Your task to perform on an android device: View the shopping cart on ebay.com. Image 0: 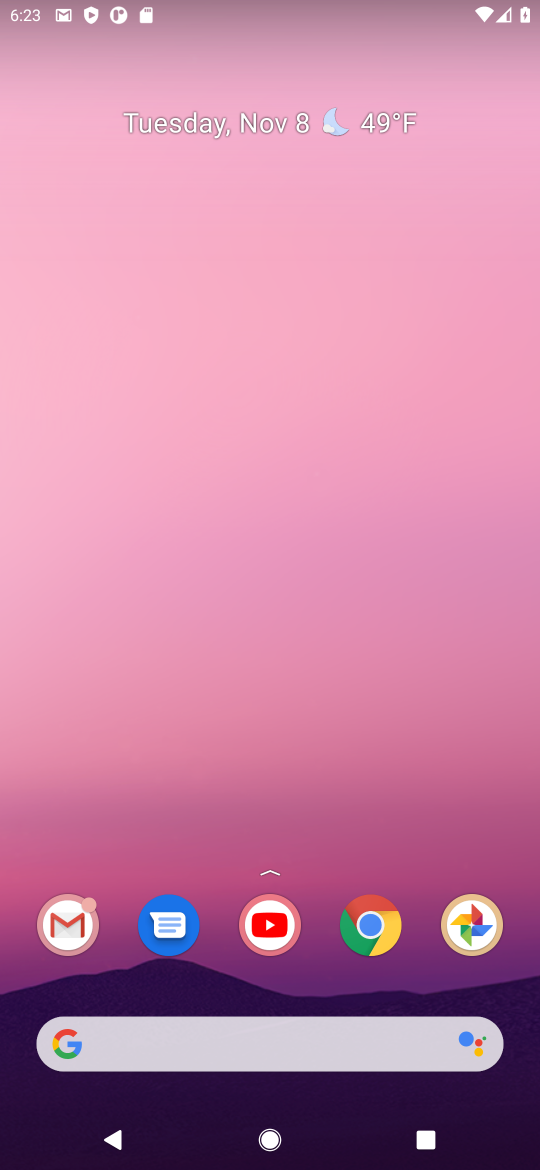
Step 0: click (369, 926)
Your task to perform on an android device: View the shopping cart on ebay.com. Image 1: 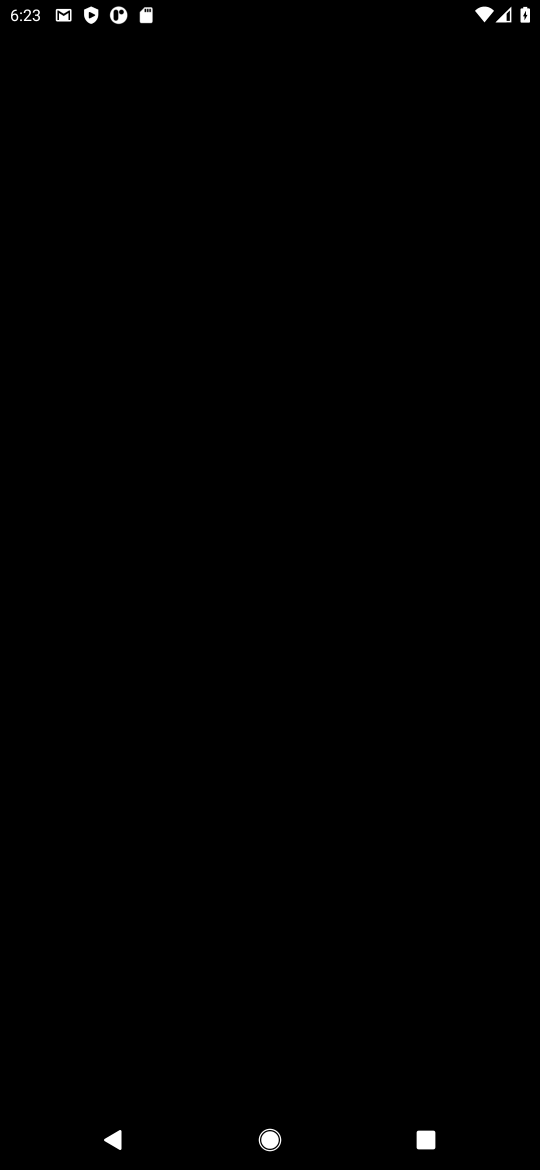
Step 1: press home button
Your task to perform on an android device: View the shopping cart on ebay.com. Image 2: 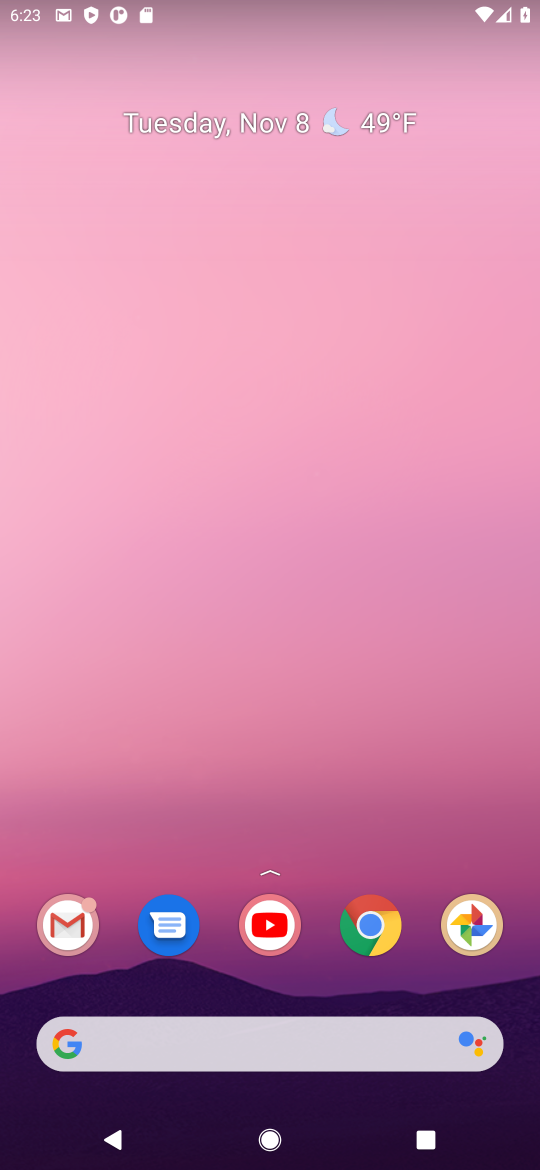
Step 2: click (376, 926)
Your task to perform on an android device: View the shopping cart on ebay.com. Image 3: 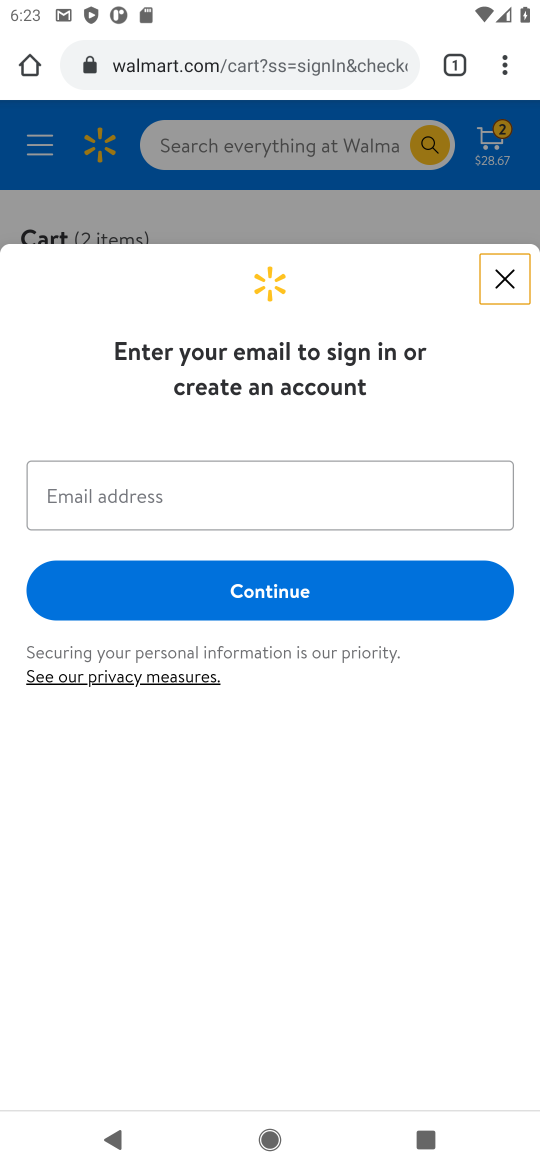
Step 3: click (205, 64)
Your task to perform on an android device: View the shopping cart on ebay.com. Image 4: 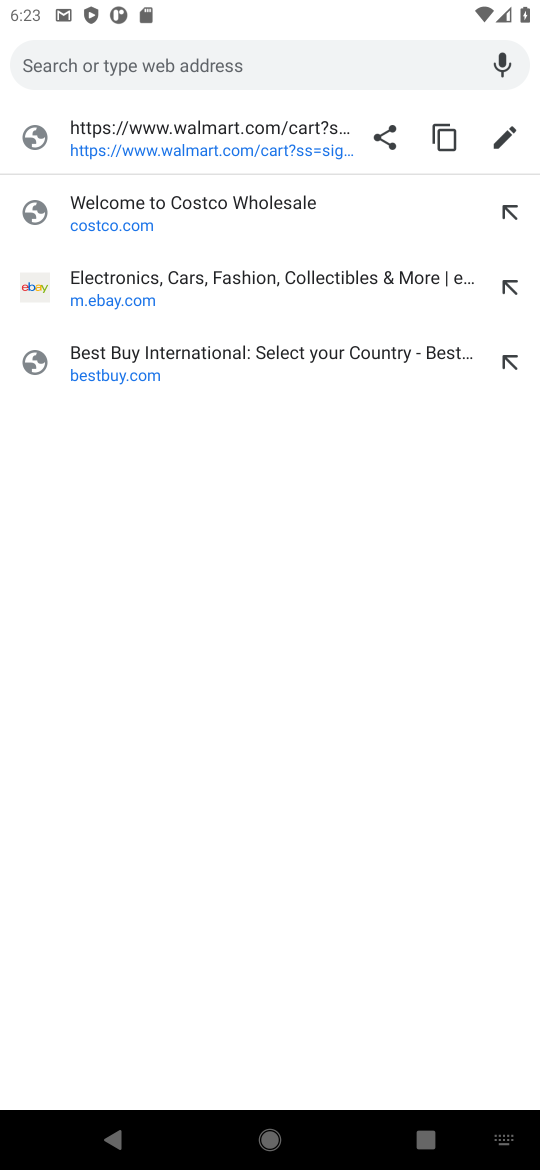
Step 4: type "ebay.com"
Your task to perform on an android device: View the shopping cart on ebay.com. Image 5: 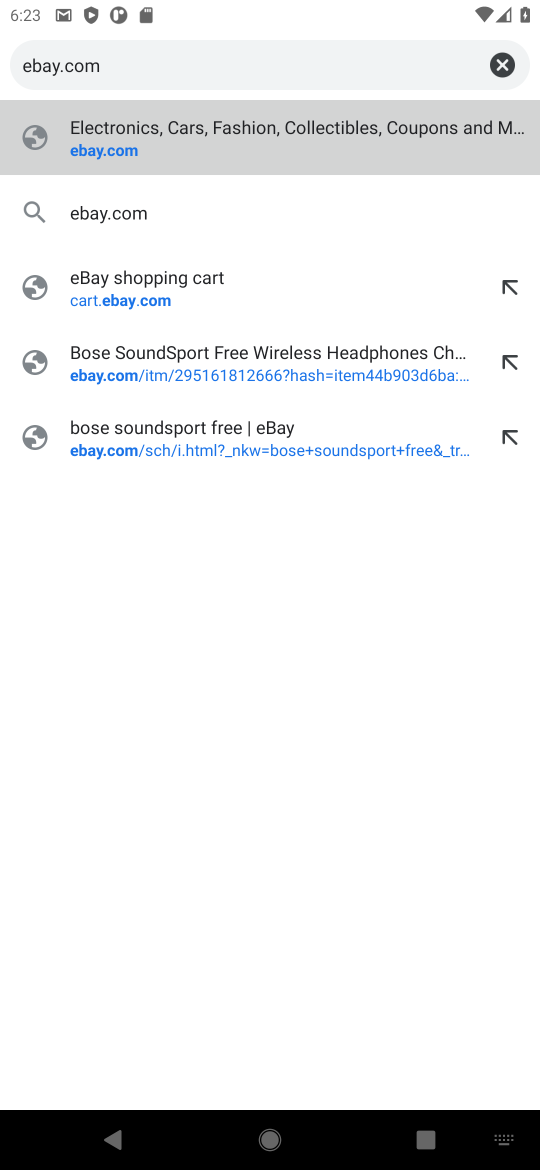
Step 5: press enter
Your task to perform on an android device: View the shopping cart on ebay.com. Image 6: 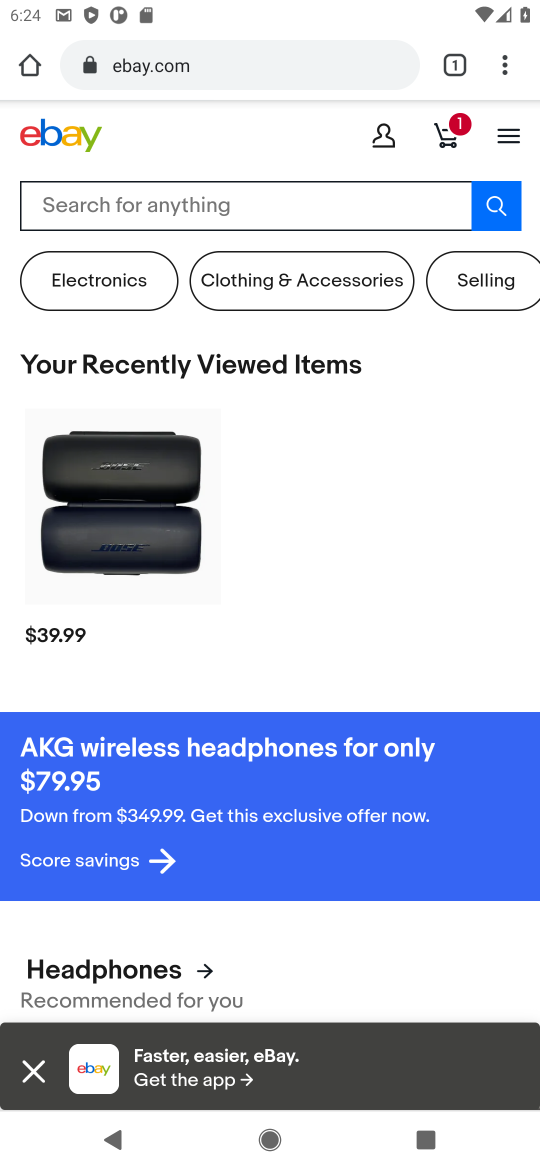
Step 6: click (445, 131)
Your task to perform on an android device: View the shopping cart on ebay.com. Image 7: 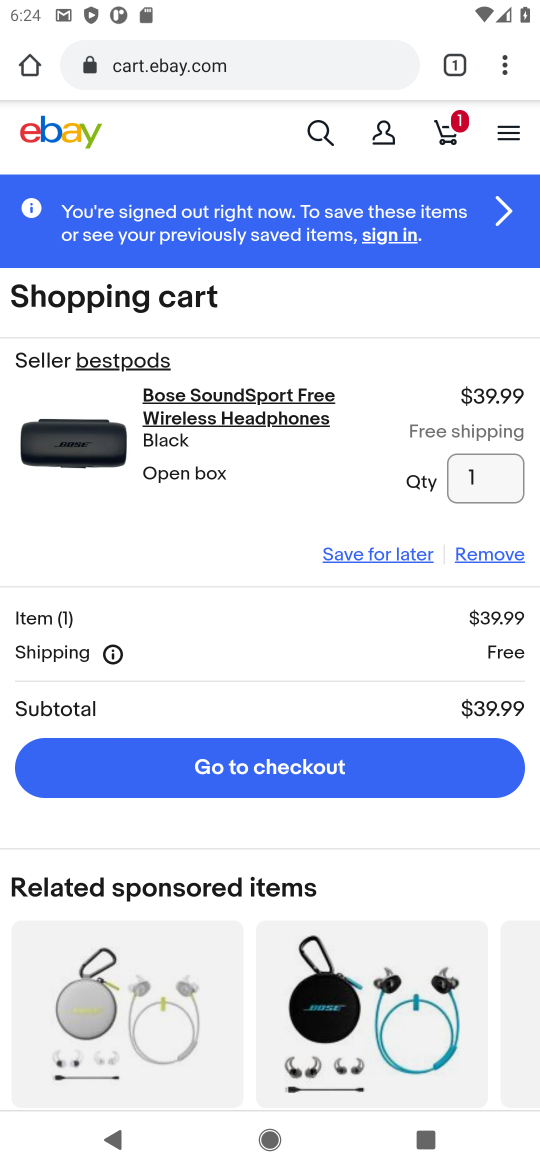
Step 7: click (169, 570)
Your task to perform on an android device: View the shopping cart on ebay.com. Image 8: 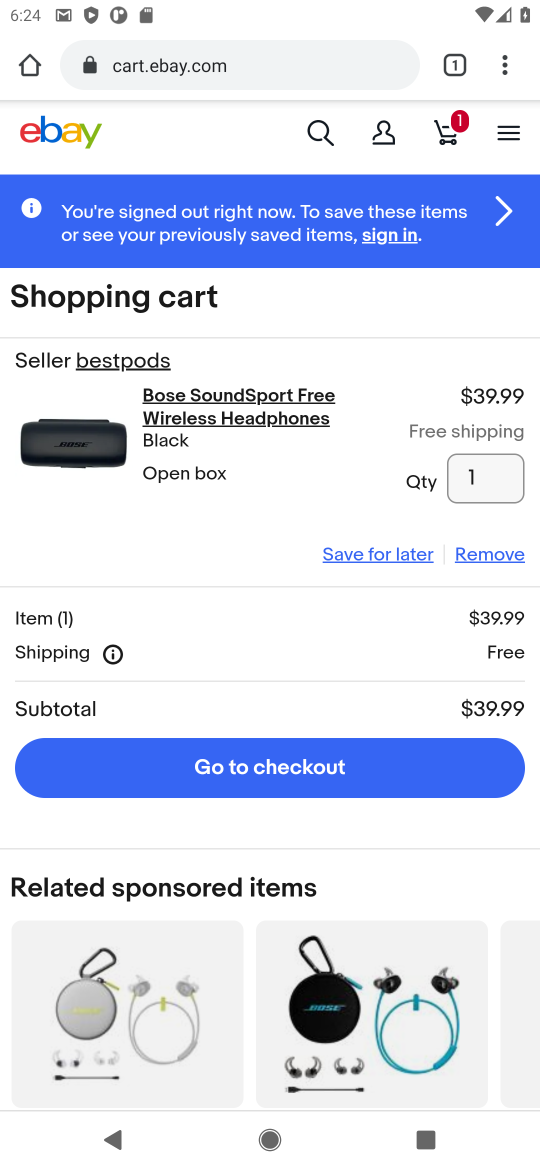
Step 8: task complete